Your task to perform on an android device: check android version Image 0: 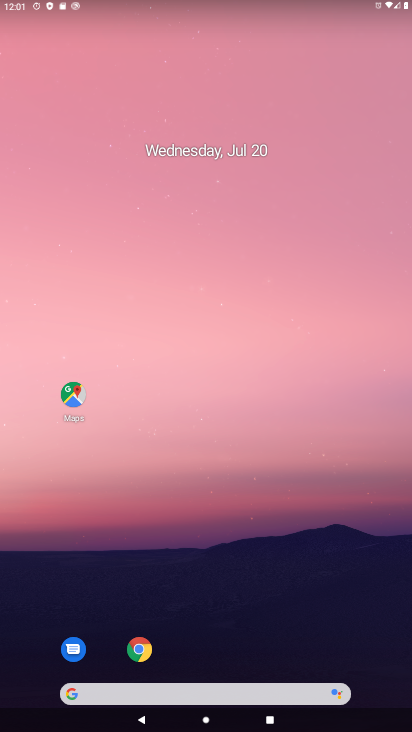
Step 0: drag from (223, 719) to (223, 168)
Your task to perform on an android device: check android version Image 1: 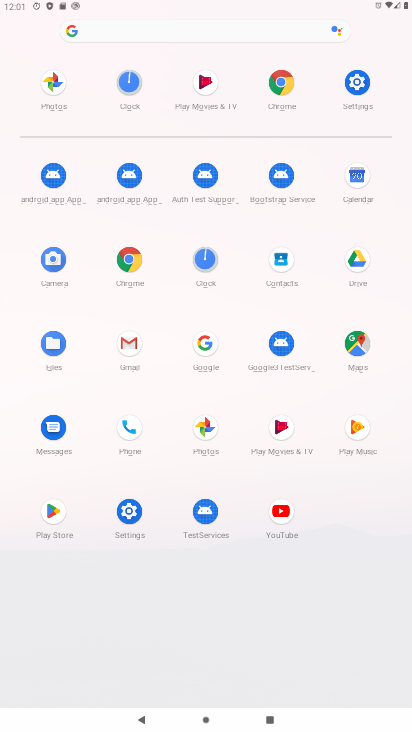
Step 1: click (352, 87)
Your task to perform on an android device: check android version Image 2: 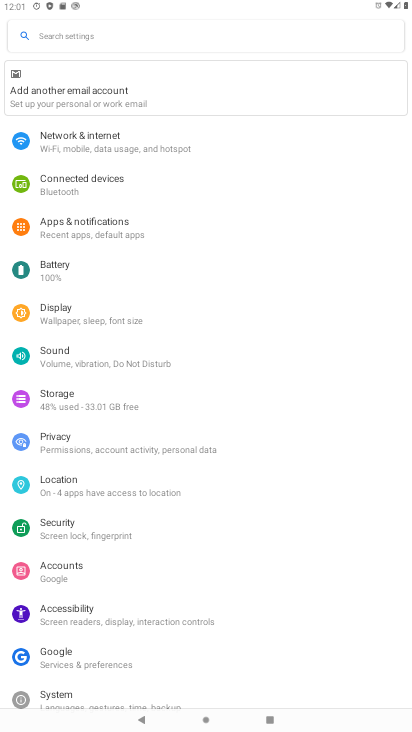
Step 2: drag from (98, 666) to (86, 339)
Your task to perform on an android device: check android version Image 3: 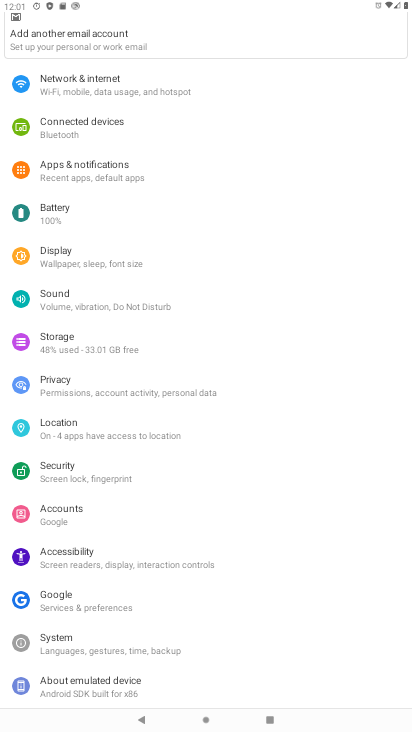
Step 3: click (136, 687)
Your task to perform on an android device: check android version Image 4: 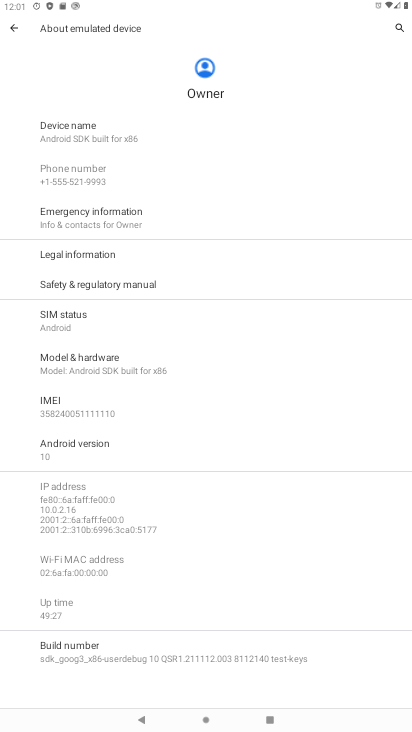
Step 4: click (70, 443)
Your task to perform on an android device: check android version Image 5: 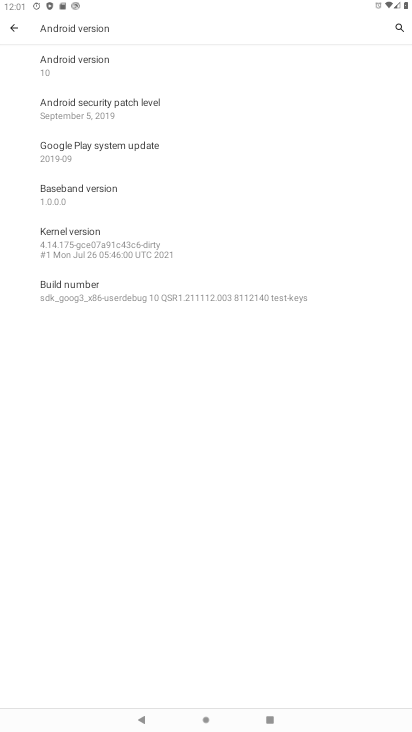
Step 5: task complete